Your task to perform on an android device: set an alarm Image 0: 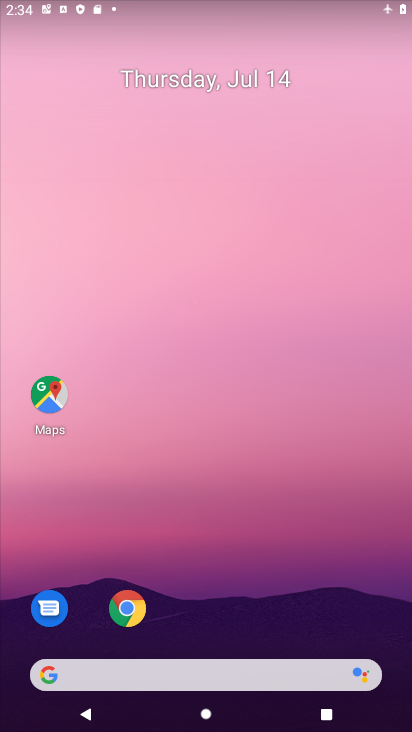
Step 0: drag from (376, 634) to (336, 125)
Your task to perform on an android device: set an alarm Image 1: 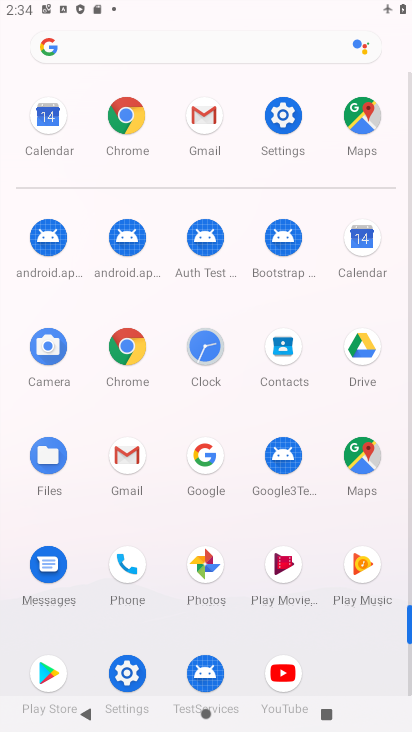
Step 1: click (202, 345)
Your task to perform on an android device: set an alarm Image 2: 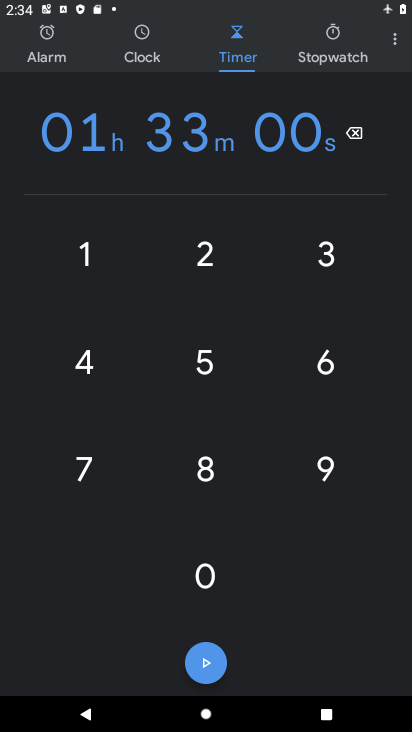
Step 2: click (49, 34)
Your task to perform on an android device: set an alarm Image 3: 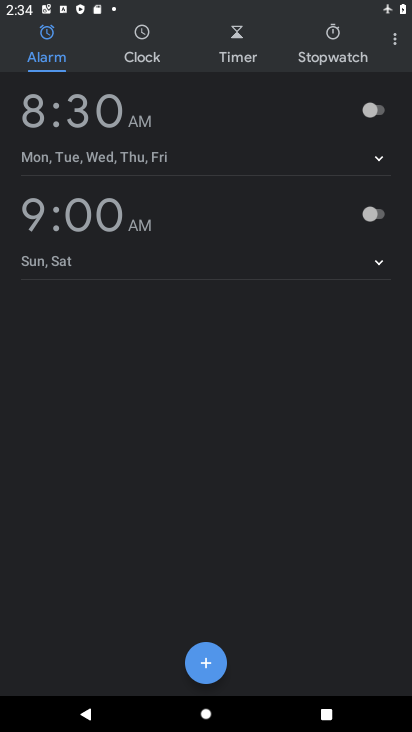
Step 3: click (49, 126)
Your task to perform on an android device: set an alarm Image 4: 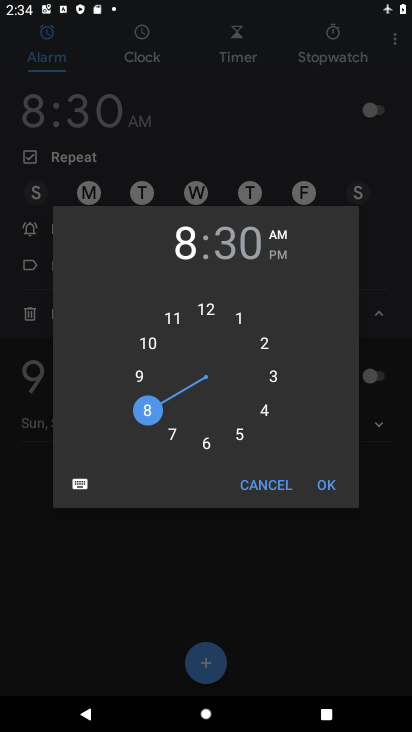
Step 4: click (237, 439)
Your task to perform on an android device: set an alarm Image 5: 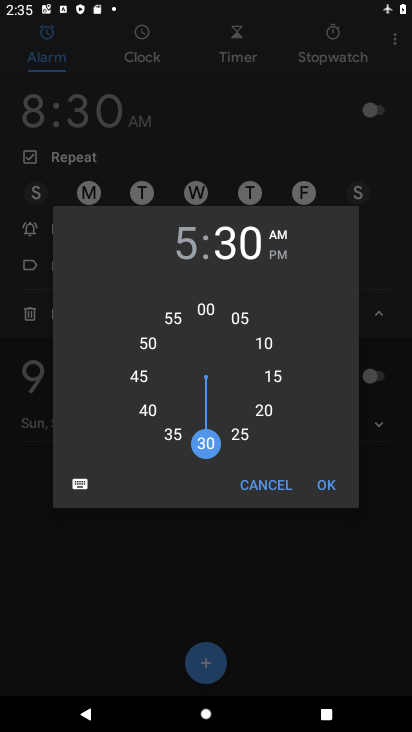
Step 5: click (209, 314)
Your task to perform on an android device: set an alarm Image 6: 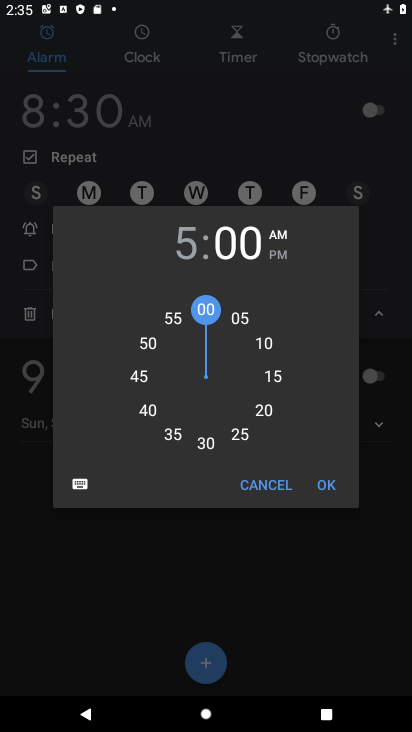
Step 6: click (330, 488)
Your task to perform on an android device: set an alarm Image 7: 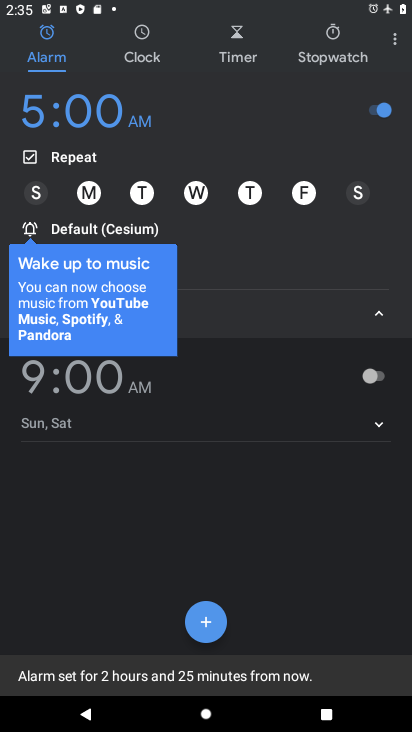
Step 7: click (356, 191)
Your task to perform on an android device: set an alarm Image 8: 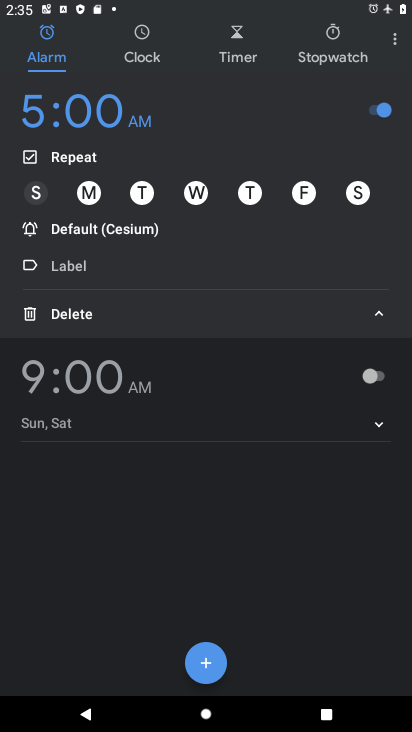
Step 8: click (382, 311)
Your task to perform on an android device: set an alarm Image 9: 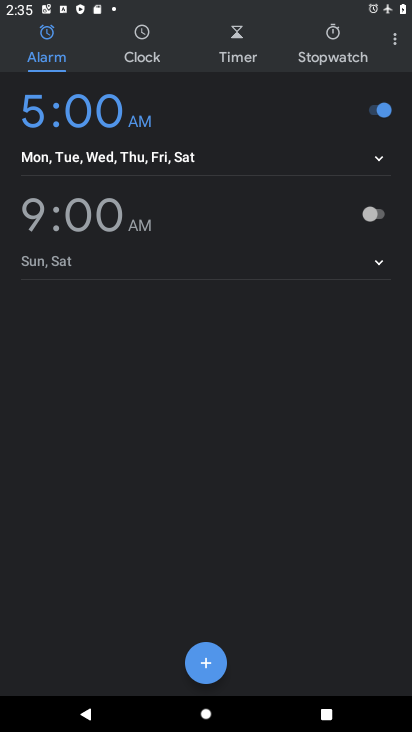
Step 9: task complete